Your task to perform on an android device: check data usage Image 0: 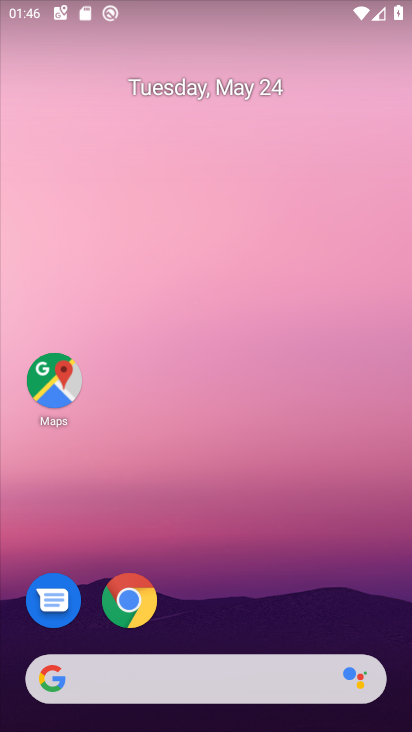
Step 0: drag from (276, 538) to (277, 317)
Your task to perform on an android device: check data usage Image 1: 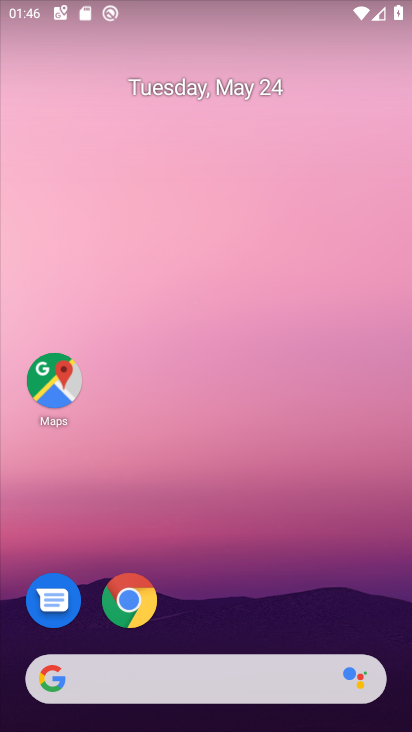
Step 1: drag from (230, 585) to (207, 286)
Your task to perform on an android device: check data usage Image 2: 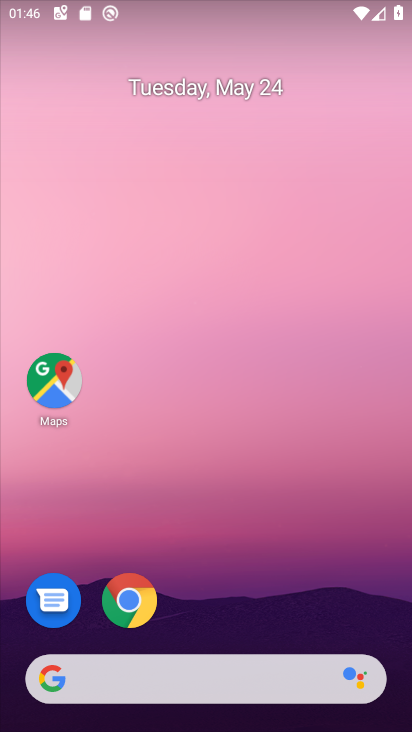
Step 2: drag from (275, 546) to (283, 183)
Your task to perform on an android device: check data usage Image 3: 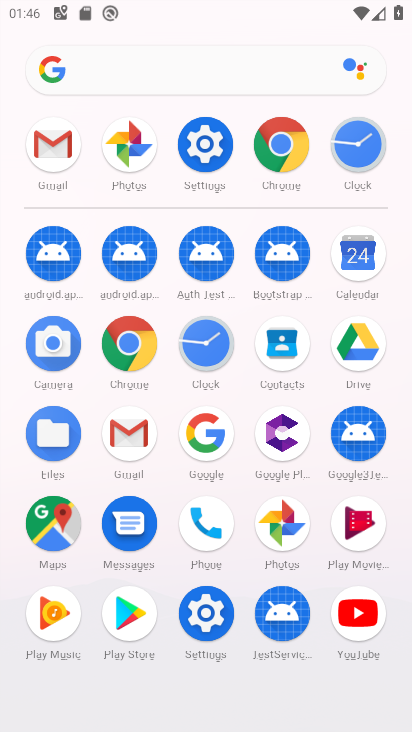
Step 3: click (226, 150)
Your task to perform on an android device: check data usage Image 4: 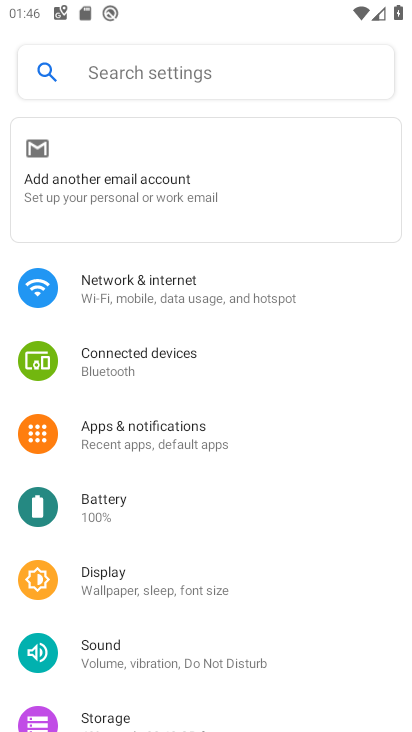
Step 4: click (249, 308)
Your task to perform on an android device: check data usage Image 5: 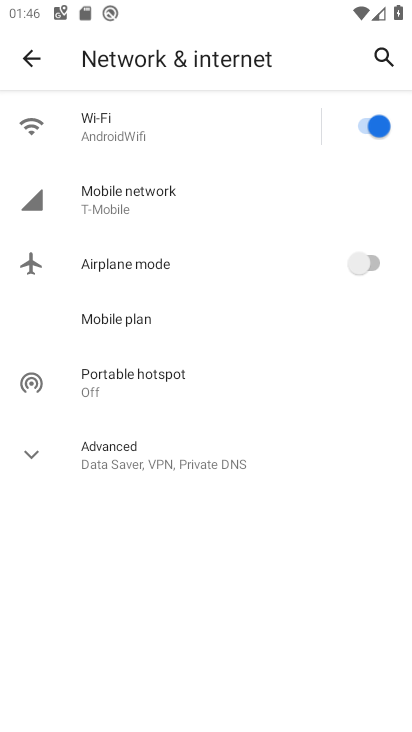
Step 5: click (249, 307)
Your task to perform on an android device: check data usage Image 6: 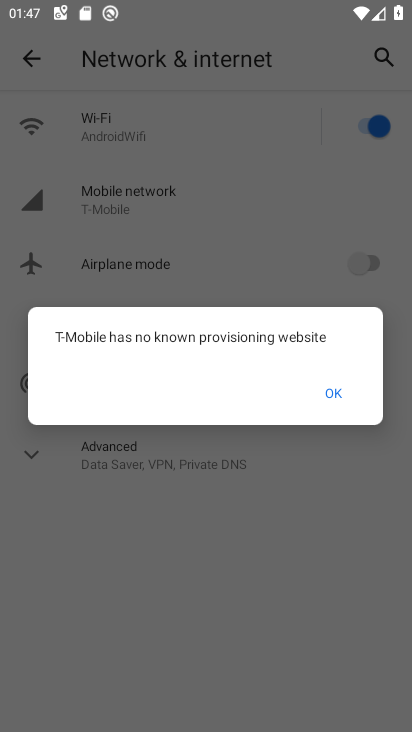
Step 6: click (158, 199)
Your task to perform on an android device: check data usage Image 7: 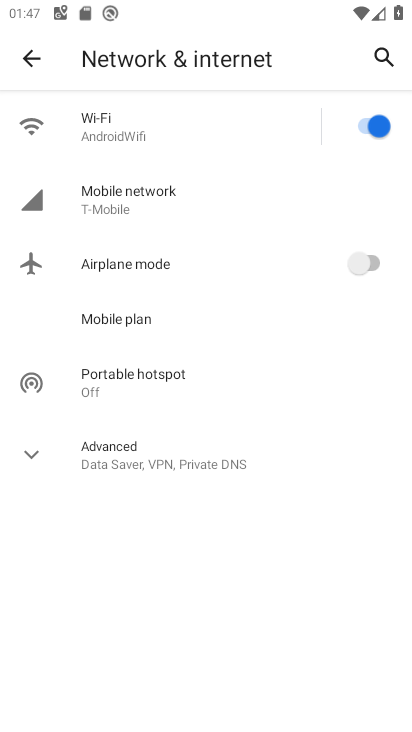
Step 7: click (196, 187)
Your task to perform on an android device: check data usage Image 8: 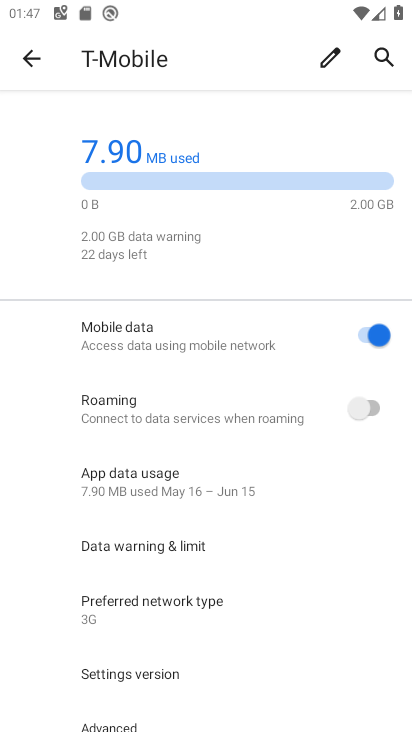
Step 8: task complete